Your task to perform on an android device: Open Google Chrome Image 0: 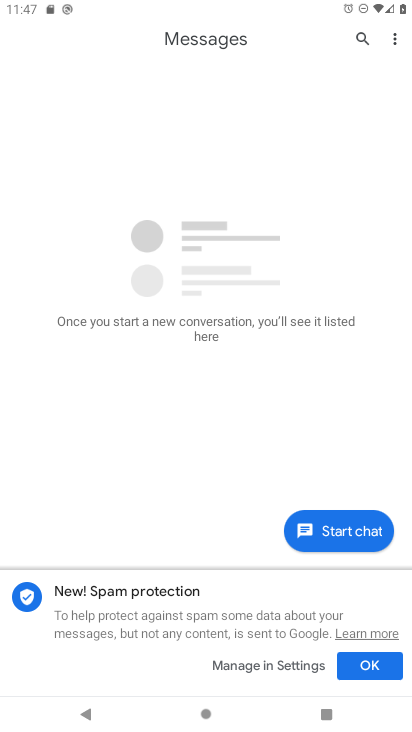
Step 0: press back button
Your task to perform on an android device: Open Google Chrome Image 1: 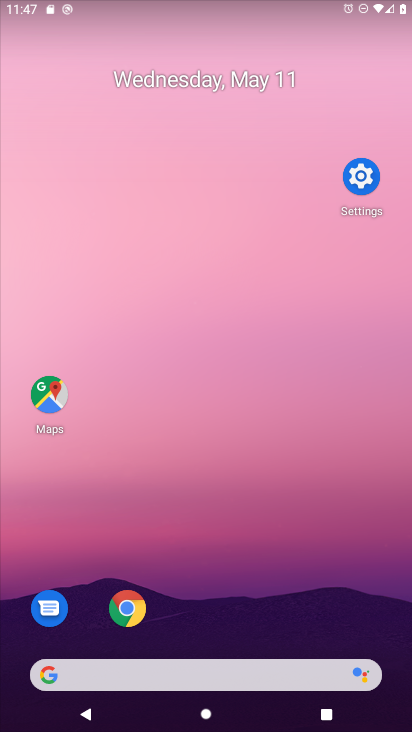
Step 1: drag from (231, 632) to (91, 23)
Your task to perform on an android device: Open Google Chrome Image 2: 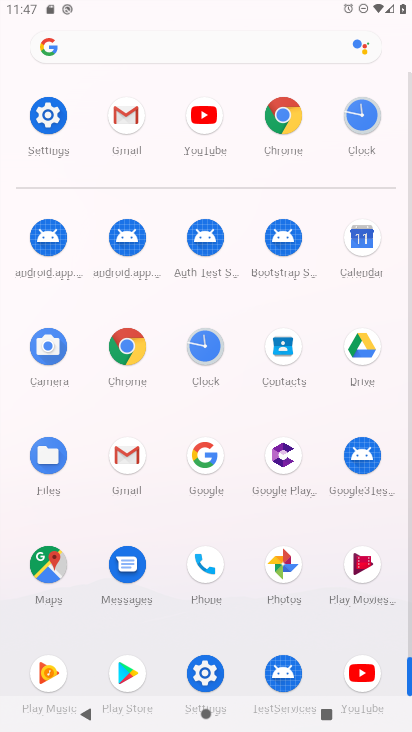
Step 2: click (215, 470)
Your task to perform on an android device: Open Google Chrome Image 3: 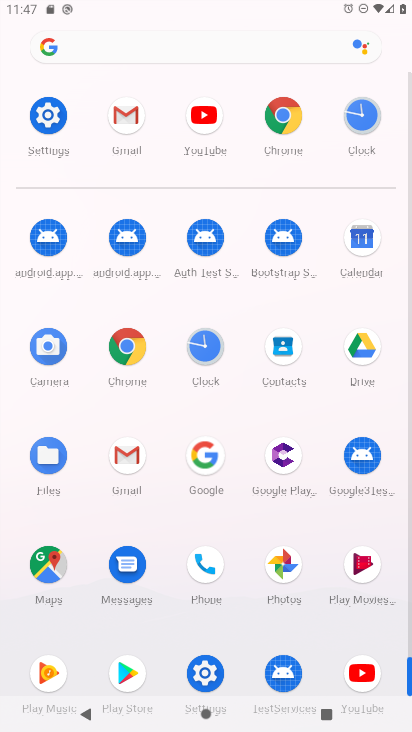
Step 3: click (214, 469)
Your task to perform on an android device: Open Google Chrome Image 4: 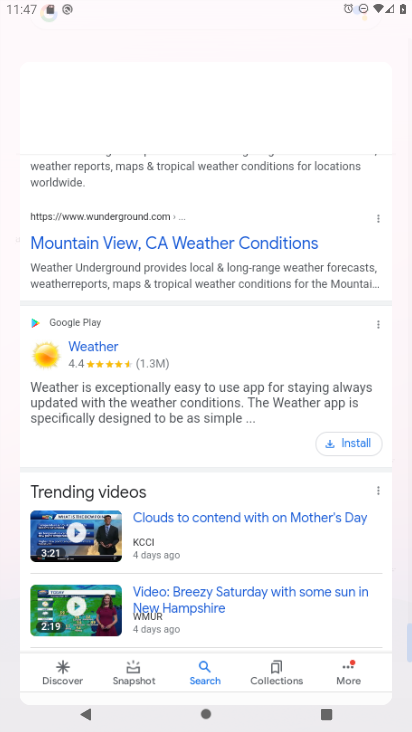
Step 4: click (214, 469)
Your task to perform on an android device: Open Google Chrome Image 5: 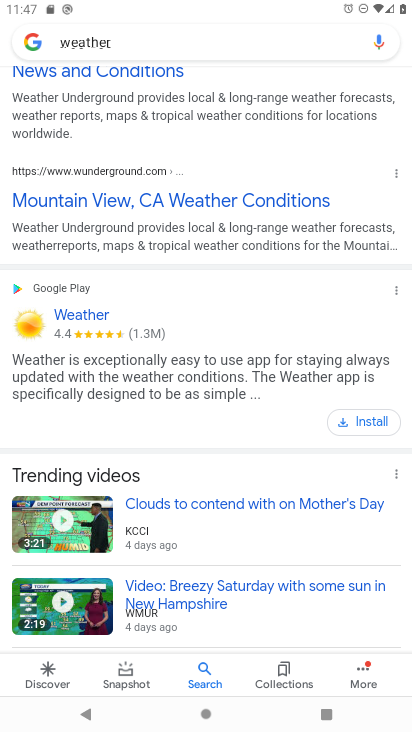
Step 5: press back button
Your task to perform on an android device: Open Google Chrome Image 6: 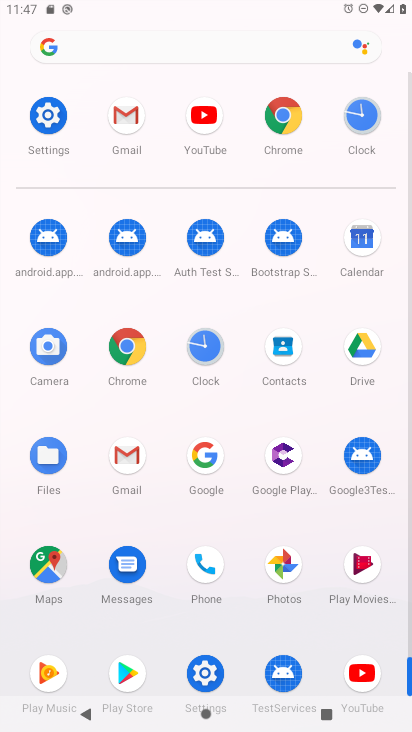
Step 6: click (292, 103)
Your task to perform on an android device: Open Google Chrome Image 7: 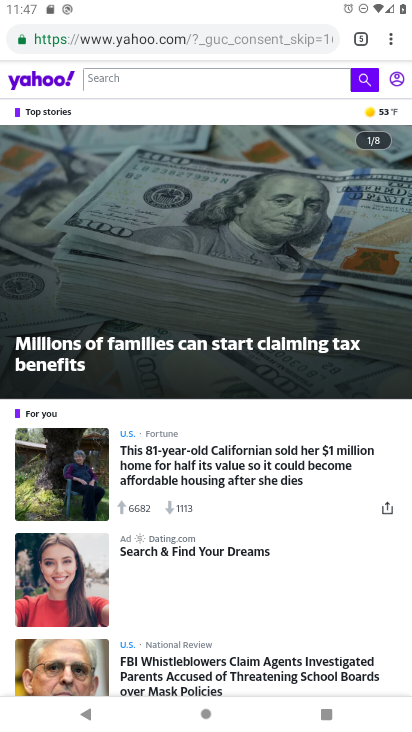
Step 7: task complete